Your task to perform on an android device: Go to settings Image 0: 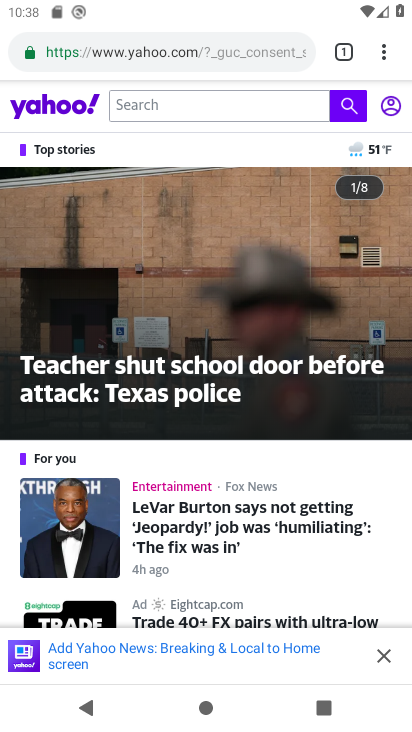
Step 0: press home button
Your task to perform on an android device: Go to settings Image 1: 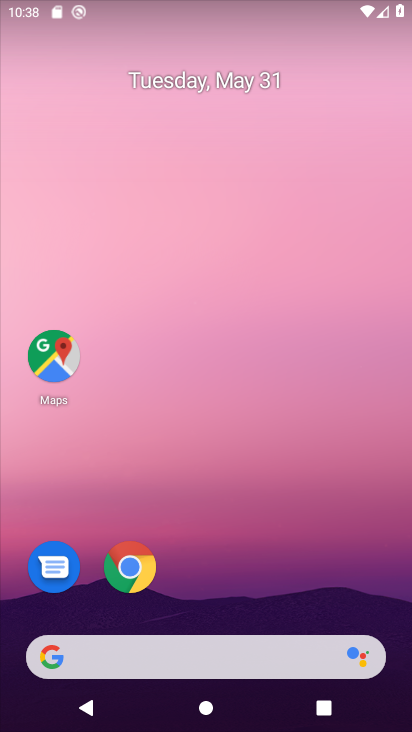
Step 1: drag from (181, 613) to (223, 19)
Your task to perform on an android device: Go to settings Image 2: 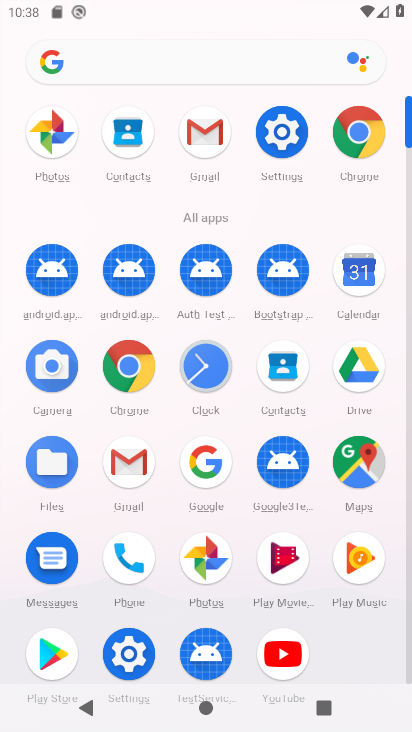
Step 2: click (280, 149)
Your task to perform on an android device: Go to settings Image 3: 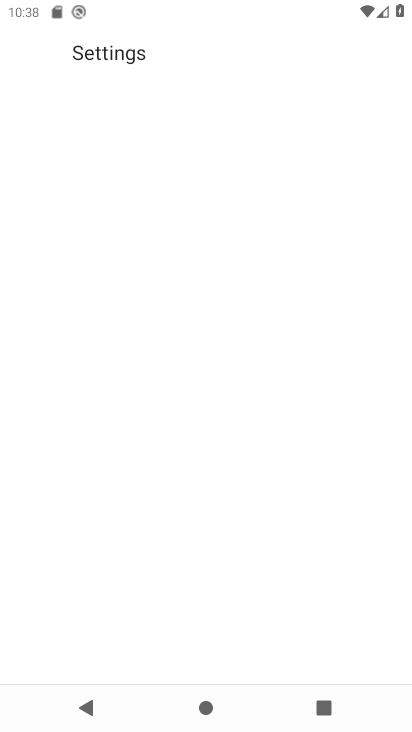
Step 3: click (280, 149)
Your task to perform on an android device: Go to settings Image 4: 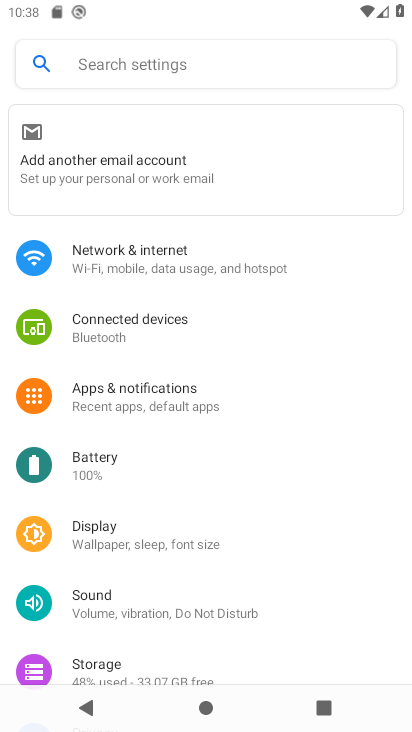
Step 4: task complete